Your task to perform on an android device: Go to location settings Image 0: 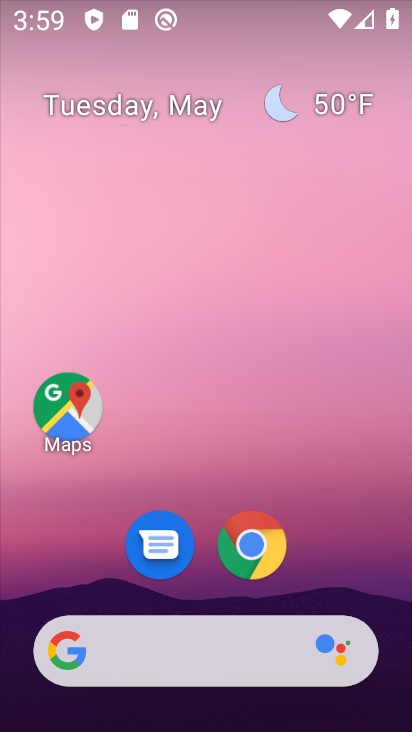
Step 0: drag from (201, 593) to (313, 84)
Your task to perform on an android device: Go to location settings Image 1: 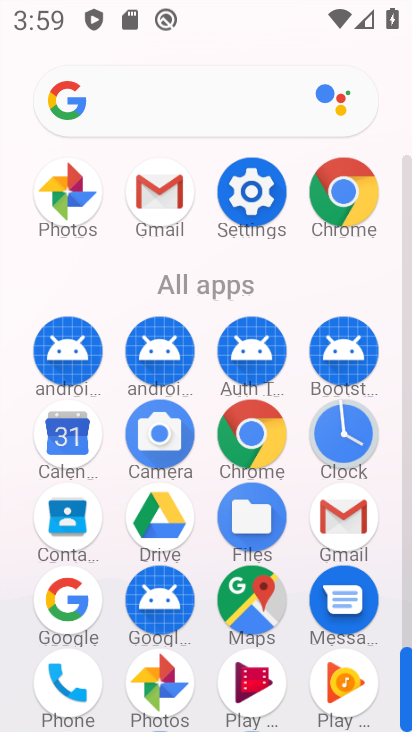
Step 1: click (262, 209)
Your task to perform on an android device: Go to location settings Image 2: 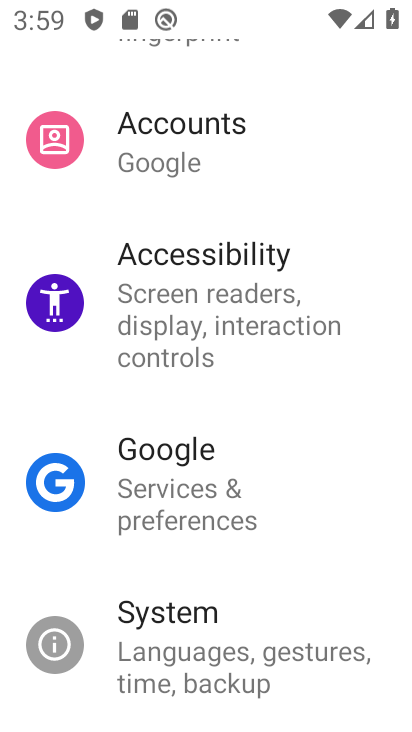
Step 2: drag from (239, 271) to (240, 507)
Your task to perform on an android device: Go to location settings Image 3: 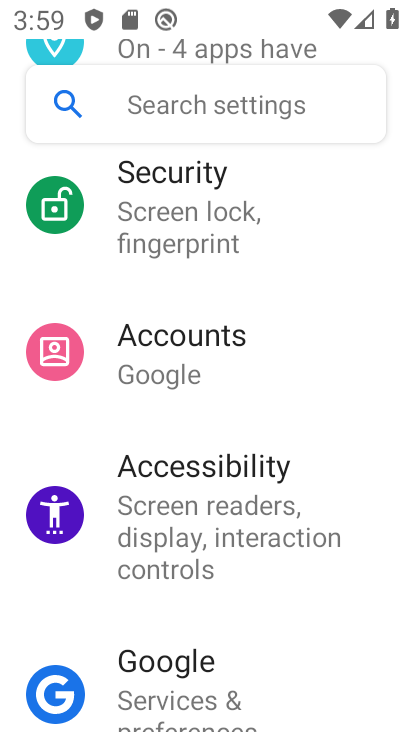
Step 3: drag from (230, 261) to (240, 491)
Your task to perform on an android device: Go to location settings Image 4: 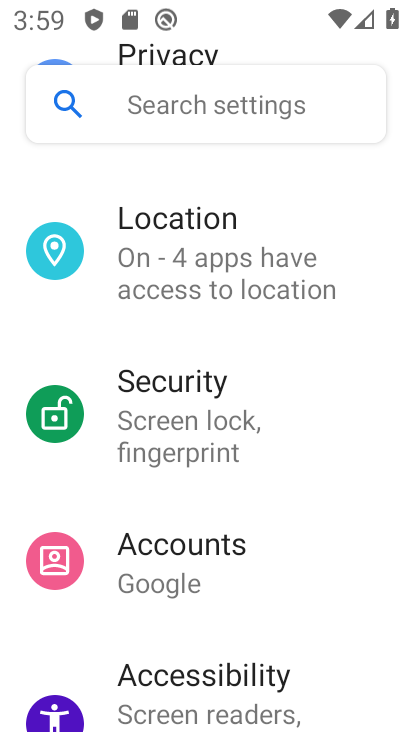
Step 4: click (226, 276)
Your task to perform on an android device: Go to location settings Image 5: 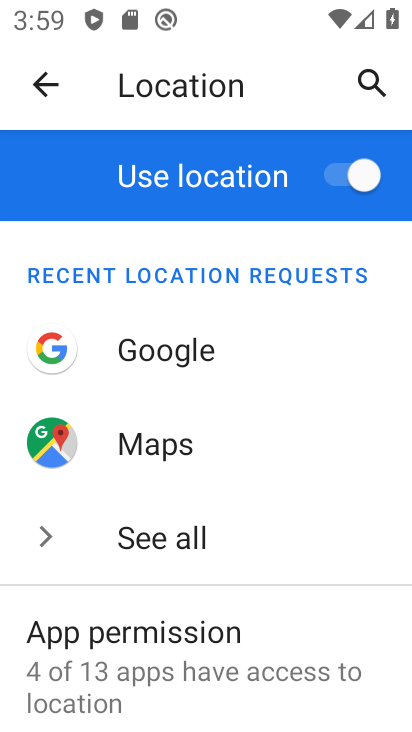
Step 5: task complete